Your task to perform on an android device: Clear the cart on newegg. Add "apple airpods pro" to the cart on newegg Image 0: 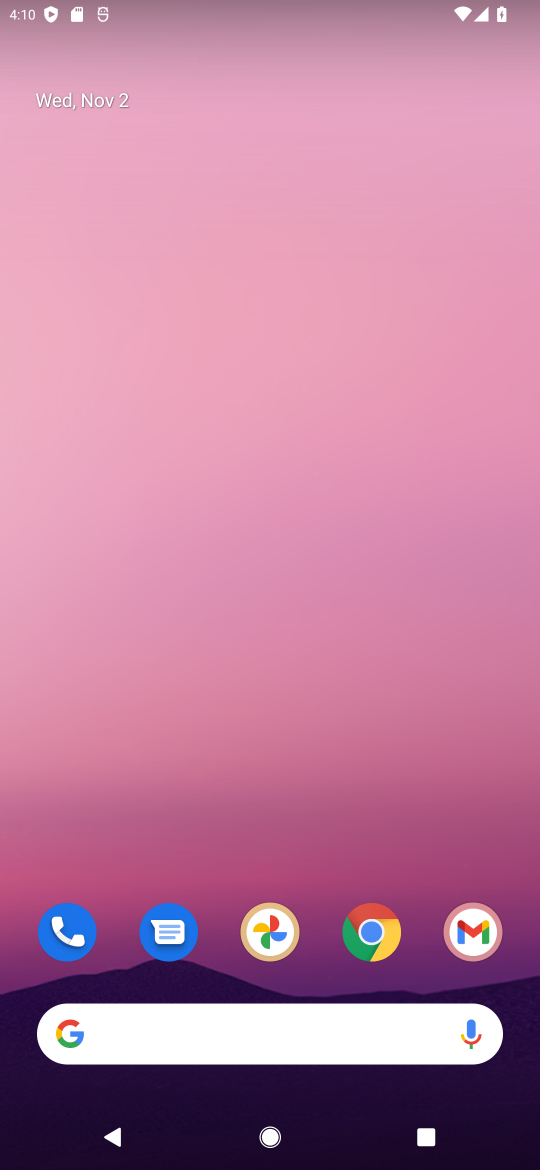
Step 0: click (370, 939)
Your task to perform on an android device: Clear the cart on newegg. Add "apple airpods pro" to the cart on newegg Image 1: 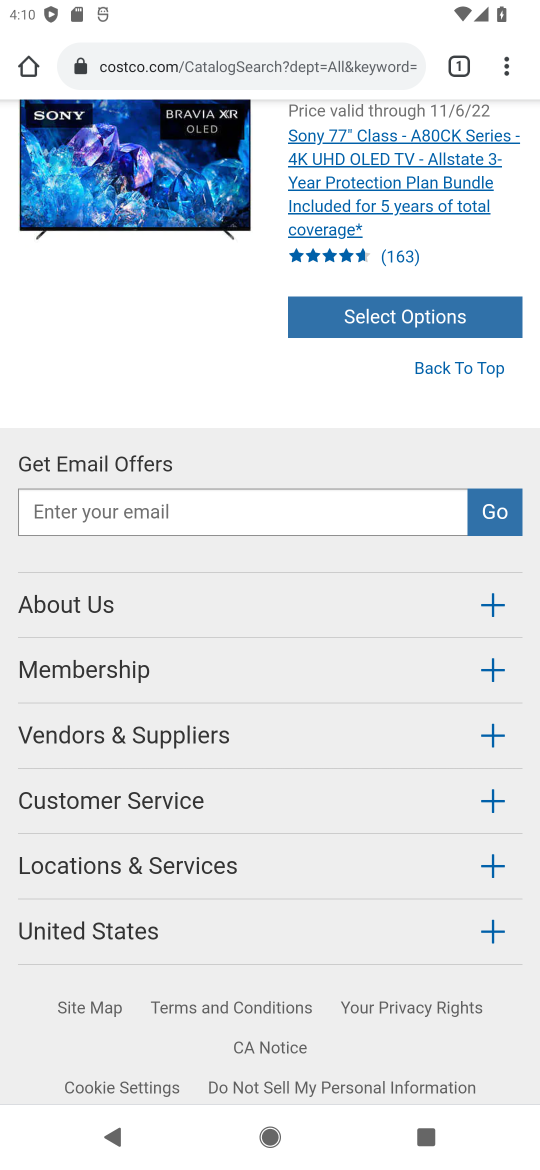
Step 1: click (143, 67)
Your task to perform on an android device: Clear the cart on newegg. Add "apple airpods pro" to the cart on newegg Image 2: 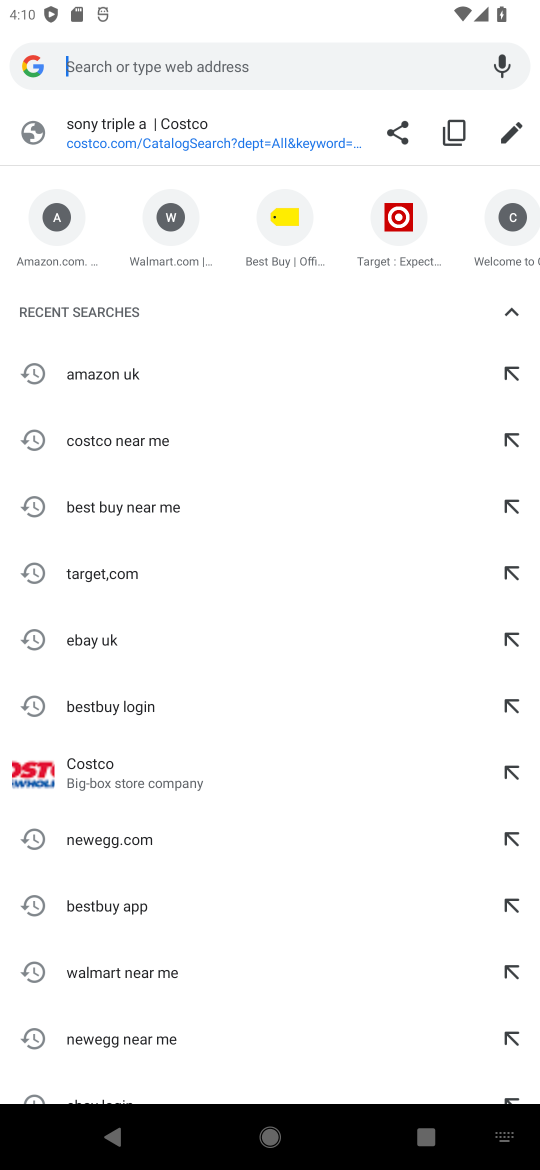
Step 2: type "newegg"
Your task to perform on an android device: Clear the cart on newegg. Add "apple airpods pro" to the cart on newegg Image 3: 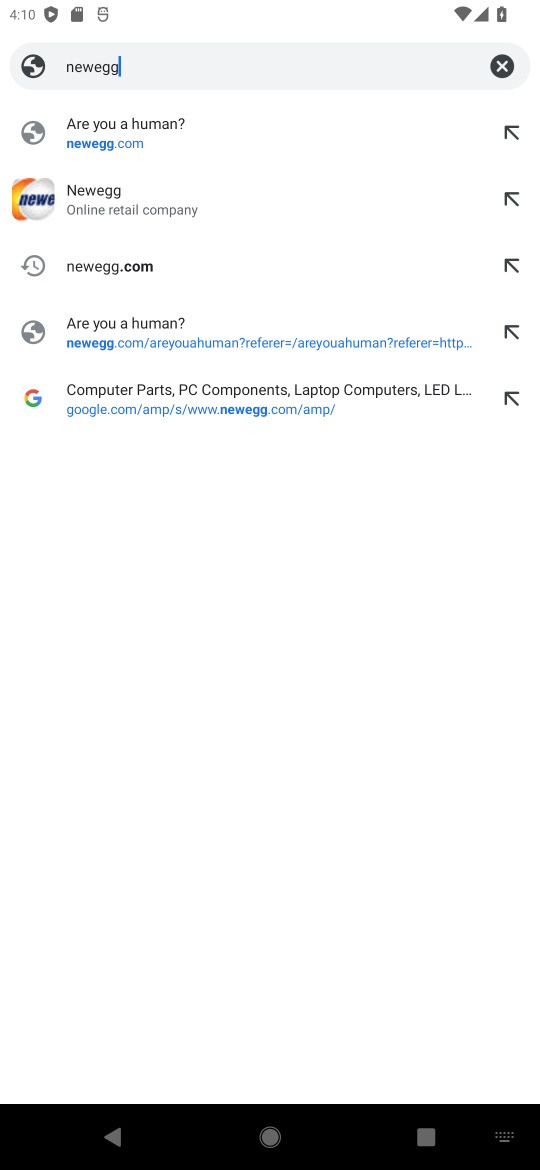
Step 3: click (160, 140)
Your task to perform on an android device: Clear the cart on newegg. Add "apple airpods pro" to the cart on newegg Image 4: 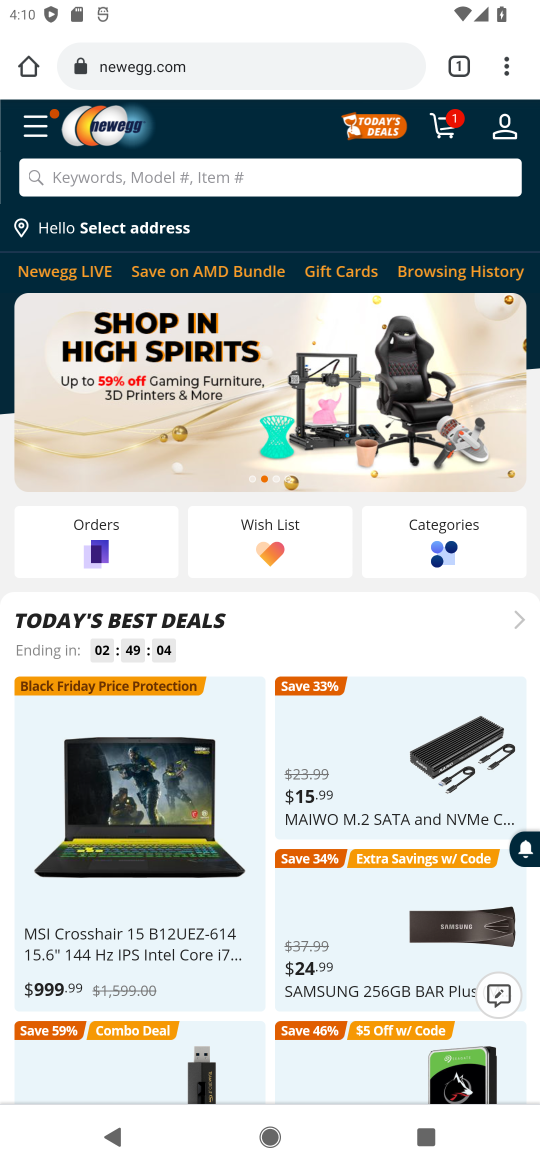
Step 4: click (225, 177)
Your task to perform on an android device: Clear the cart on newegg. Add "apple airpods pro" to the cart on newegg Image 5: 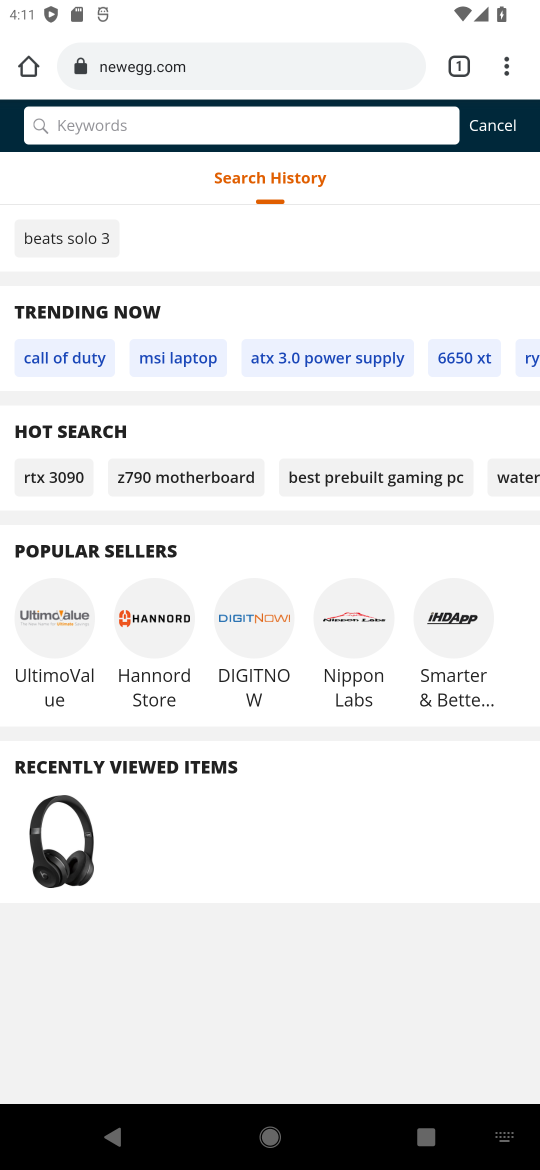
Step 5: type "apple airpods pro"
Your task to perform on an android device: Clear the cart on newegg. Add "apple airpods pro" to the cart on newegg Image 6: 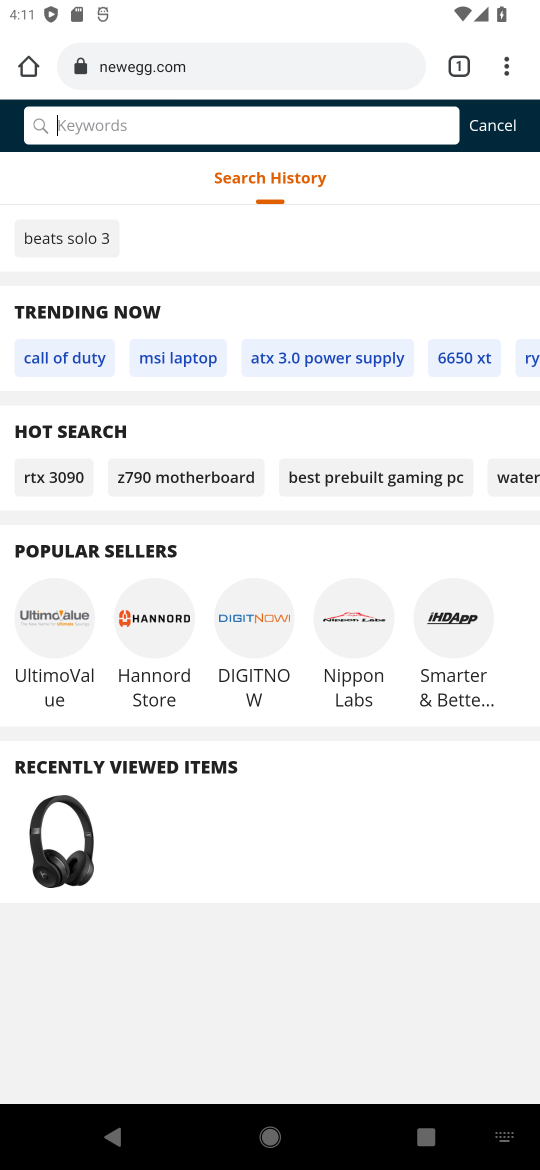
Step 6: press enter
Your task to perform on an android device: Clear the cart on newegg. Add "apple airpods pro" to the cart on newegg Image 7: 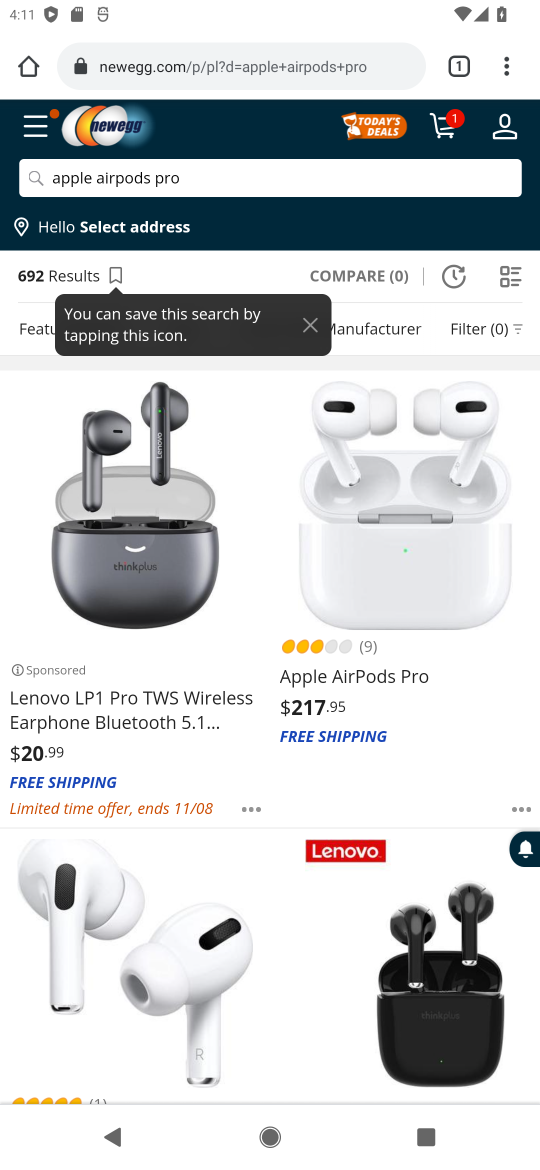
Step 7: drag from (351, 891) to (366, 796)
Your task to perform on an android device: Clear the cart on newegg. Add "apple airpods pro" to the cart on newegg Image 8: 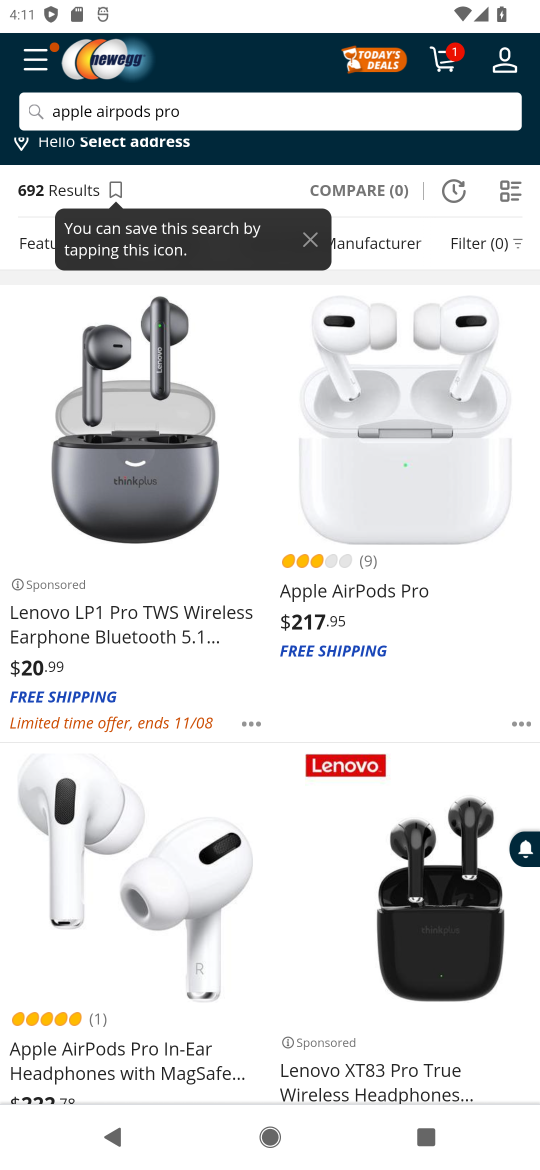
Step 8: click (427, 500)
Your task to perform on an android device: Clear the cart on newegg. Add "apple airpods pro" to the cart on newegg Image 9: 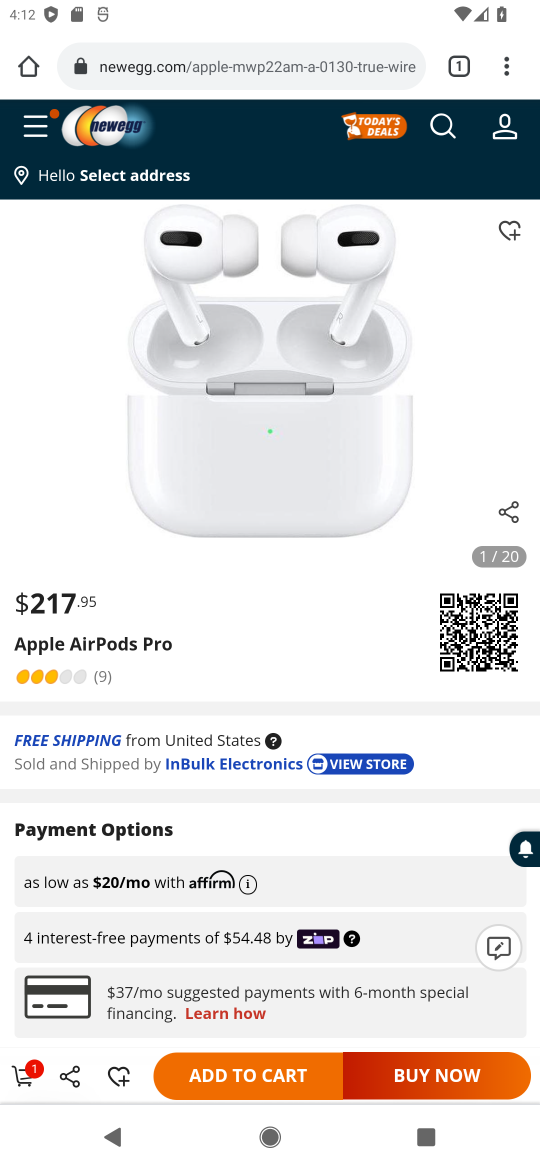
Step 9: click (246, 1081)
Your task to perform on an android device: Clear the cart on newegg. Add "apple airpods pro" to the cart on newegg Image 10: 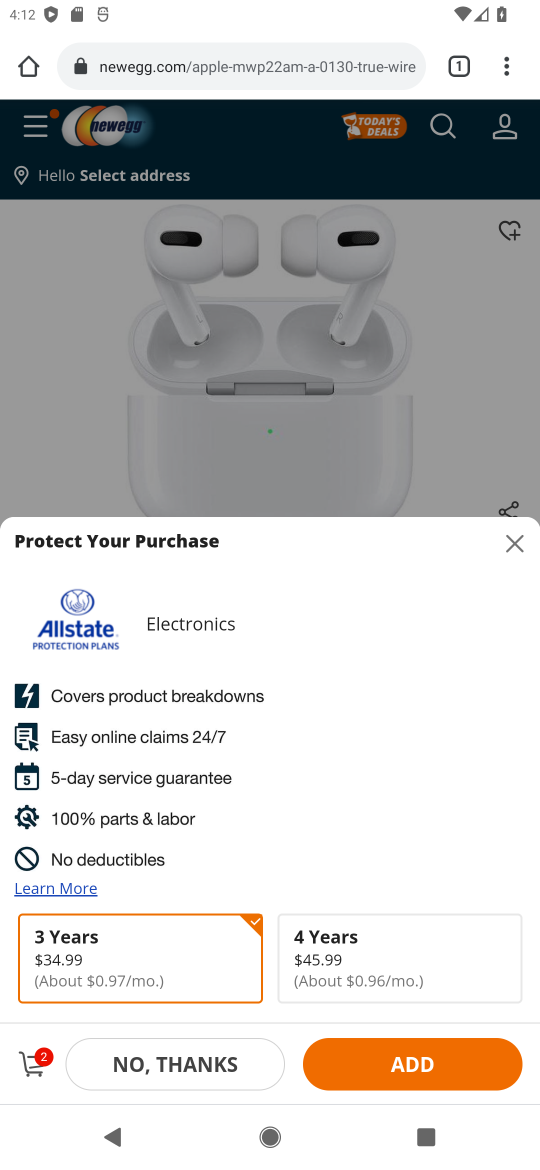
Step 10: click (377, 1064)
Your task to perform on an android device: Clear the cart on newegg. Add "apple airpods pro" to the cart on newegg Image 11: 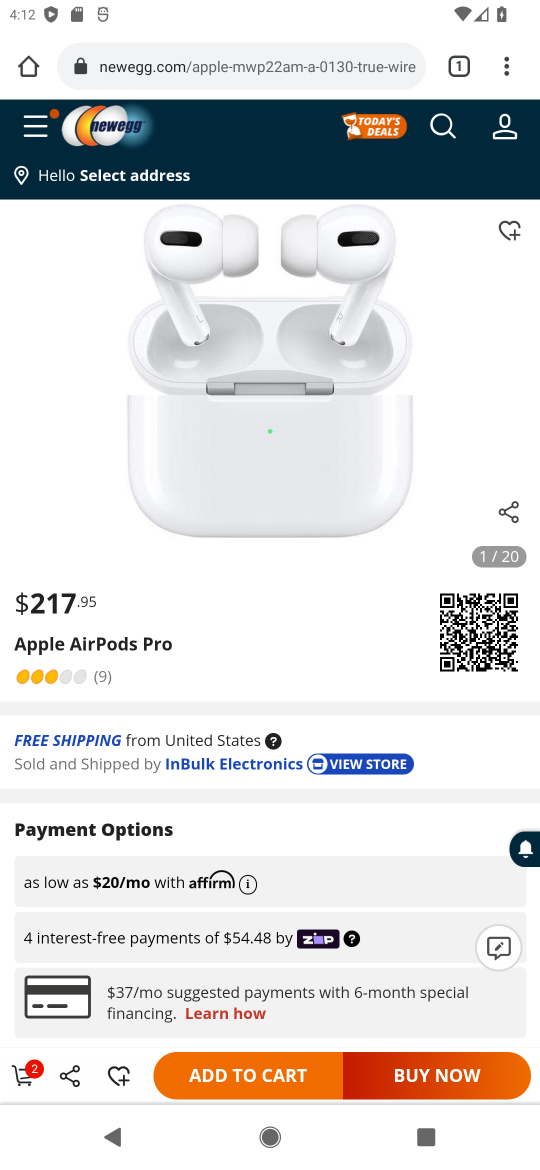
Step 11: click (31, 130)
Your task to perform on an android device: Clear the cart on newegg. Add "apple airpods pro" to the cart on newegg Image 12: 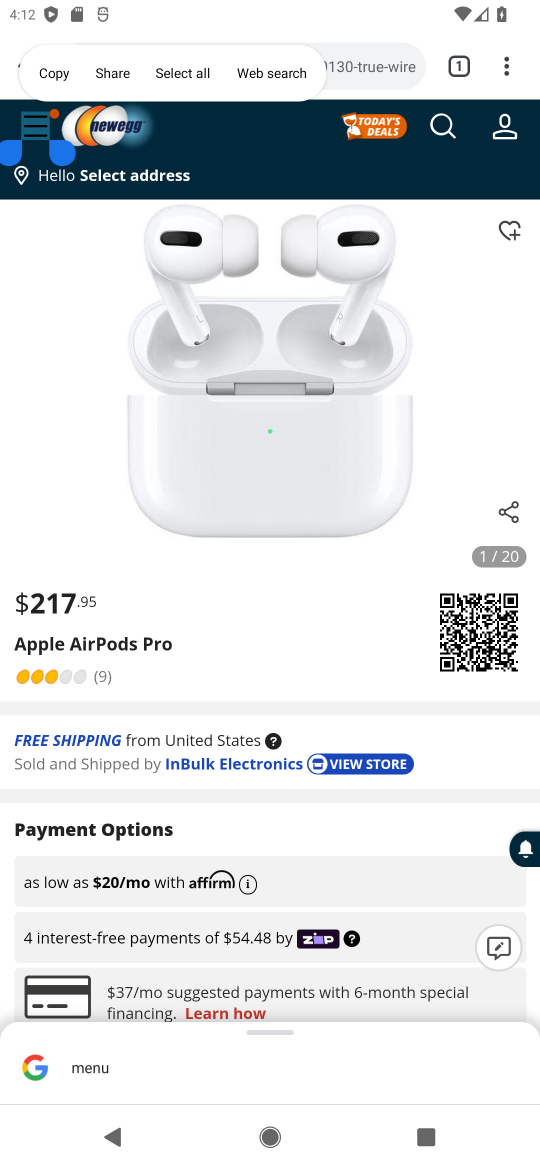
Step 12: click (29, 132)
Your task to perform on an android device: Clear the cart on newegg. Add "apple airpods pro" to the cart on newegg Image 13: 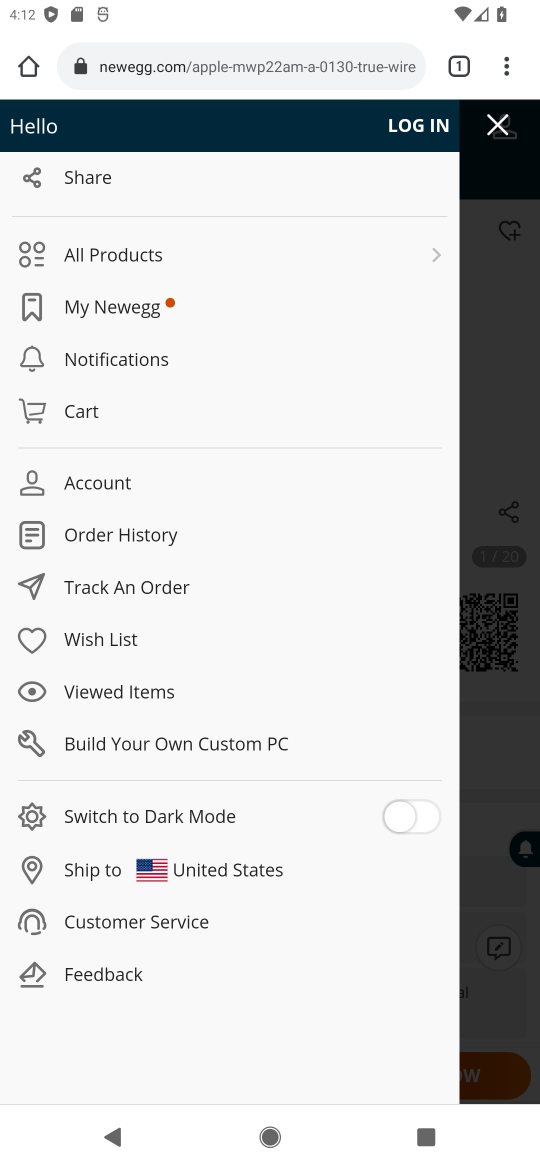
Step 13: click (144, 417)
Your task to perform on an android device: Clear the cart on newegg. Add "apple airpods pro" to the cart on newegg Image 14: 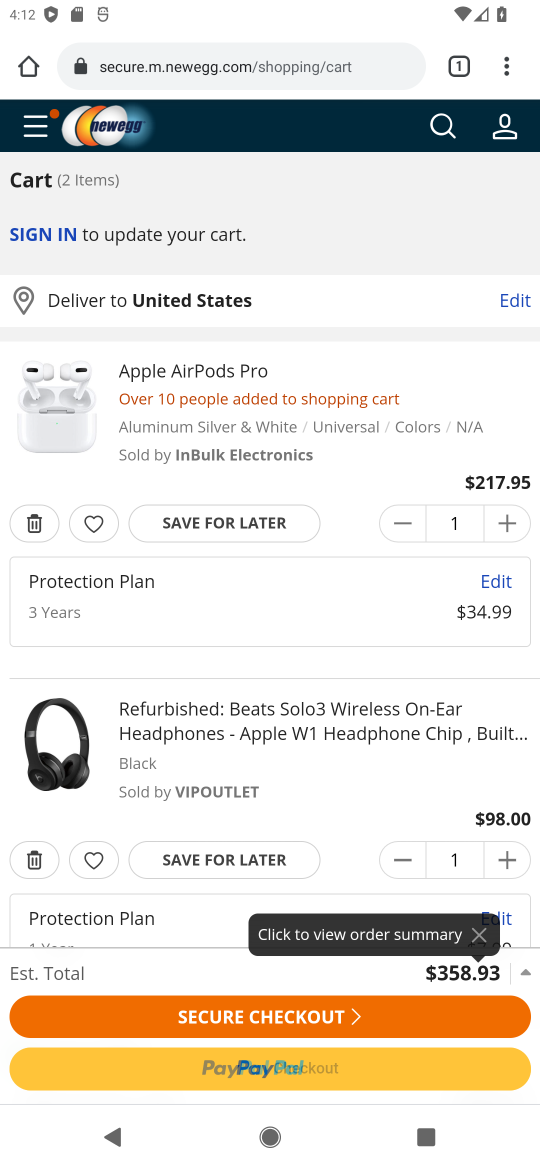
Step 14: task complete